Your task to perform on an android device: turn on data saver in the chrome app Image 0: 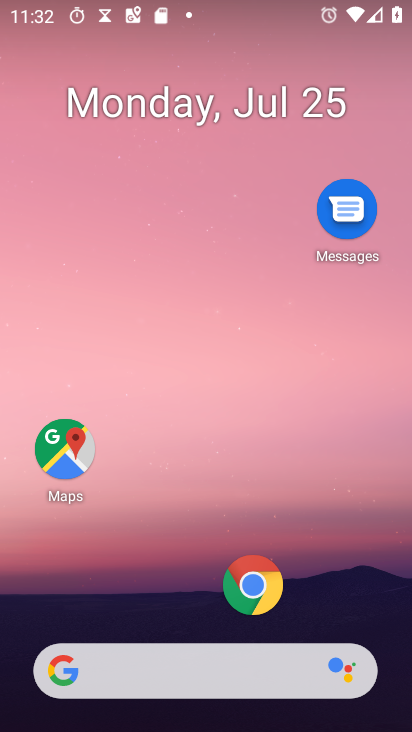
Step 0: click (249, 589)
Your task to perform on an android device: turn on data saver in the chrome app Image 1: 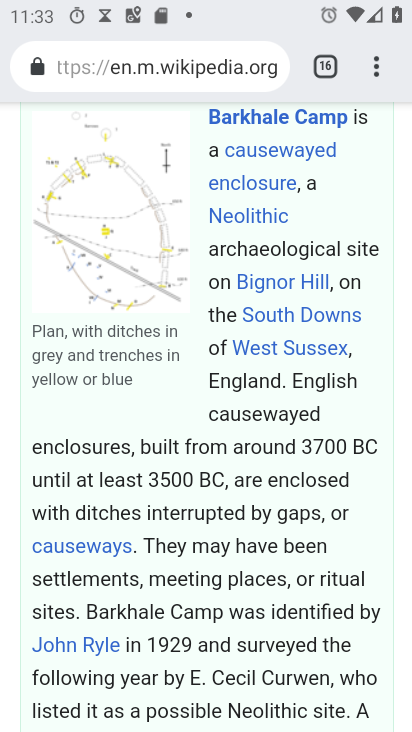
Step 1: drag from (374, 69) to (201, 587)
Your task to perform on an android device: turn on data saver in the chrome app Image 2: 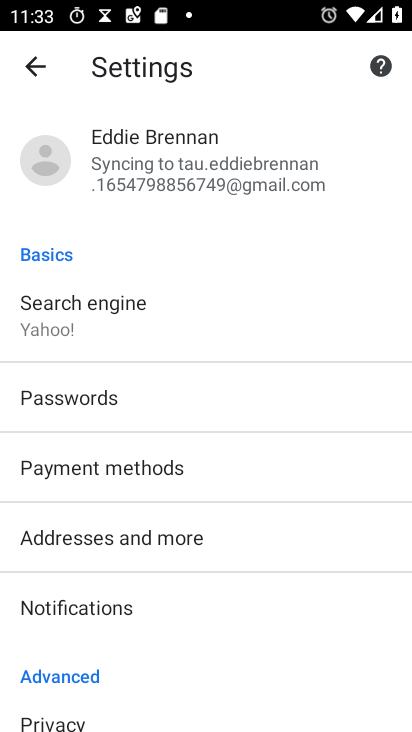
Step 2: drag from (188, 654) to (313, 244)
Your task to perform on an android device: turn on data saver in the chrome app Image 3: 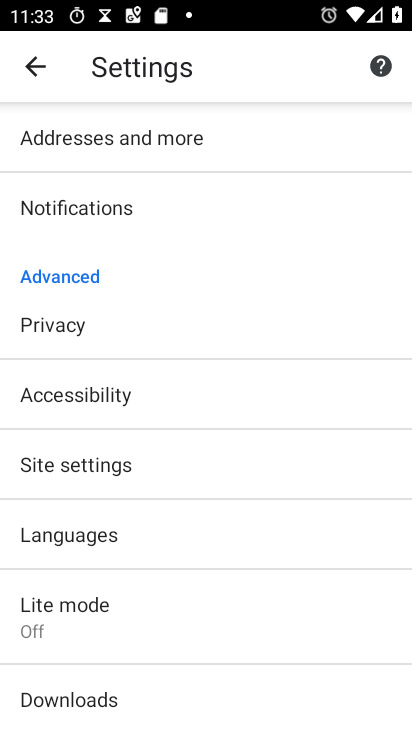
Step 3: click (72, 616)
Your task to perform on an android device: turn on data saver in the chrome app Image 4: 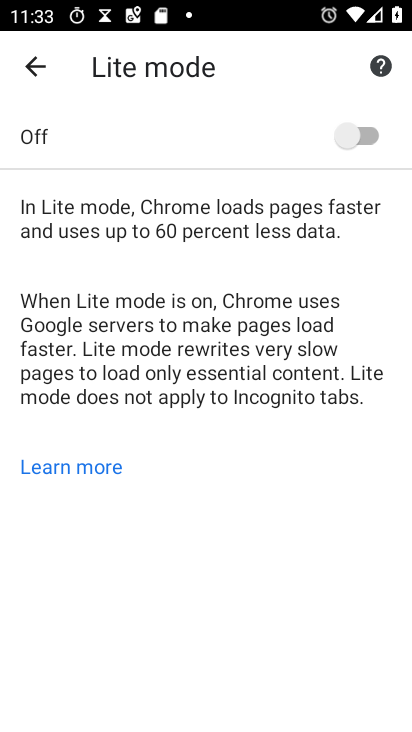
Step 4: click (366, 140)
Your task to perform on an android device: turn on data saver in the chrome app Image 5: 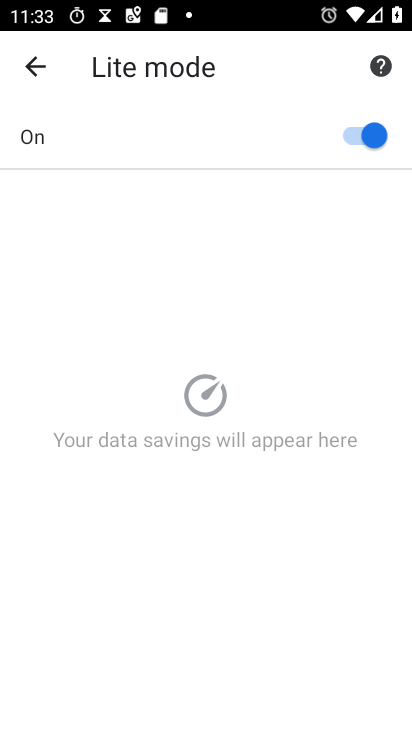
Step 5: task complete